Your task to perform on an android device: open app "Google Play services" Image 0: 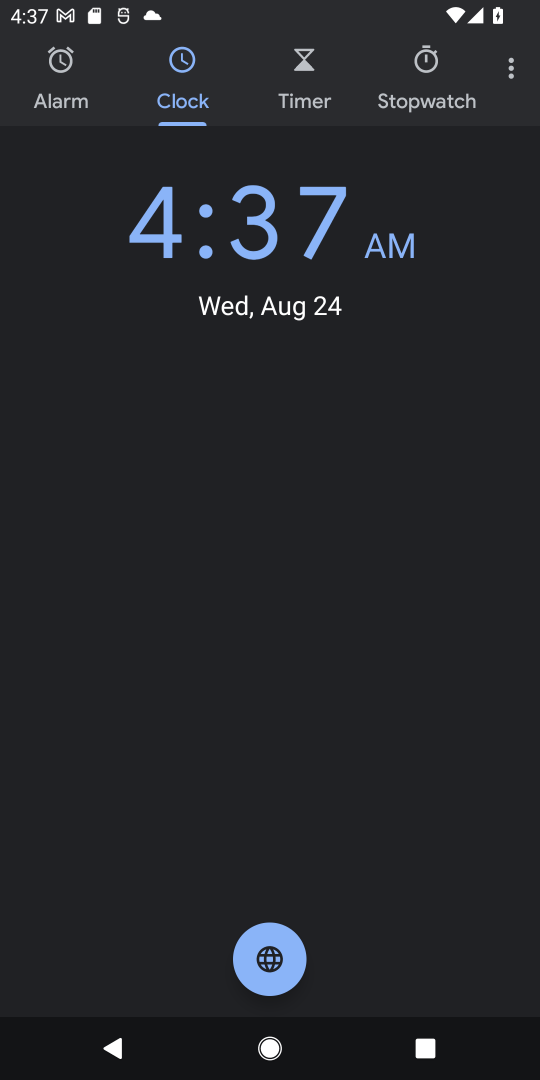
Step 0: press home button
Your task to perform on an android device: open app "Google Play services" Image 1: 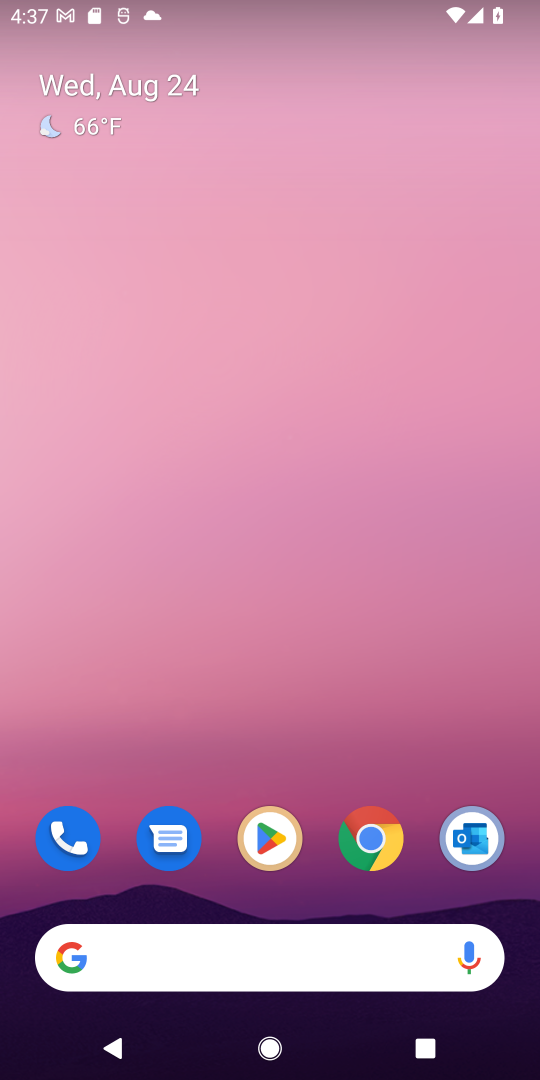
Step 1: click (267, 834)
Your task to perform on an android device: open app "Google Play services" Image 2: 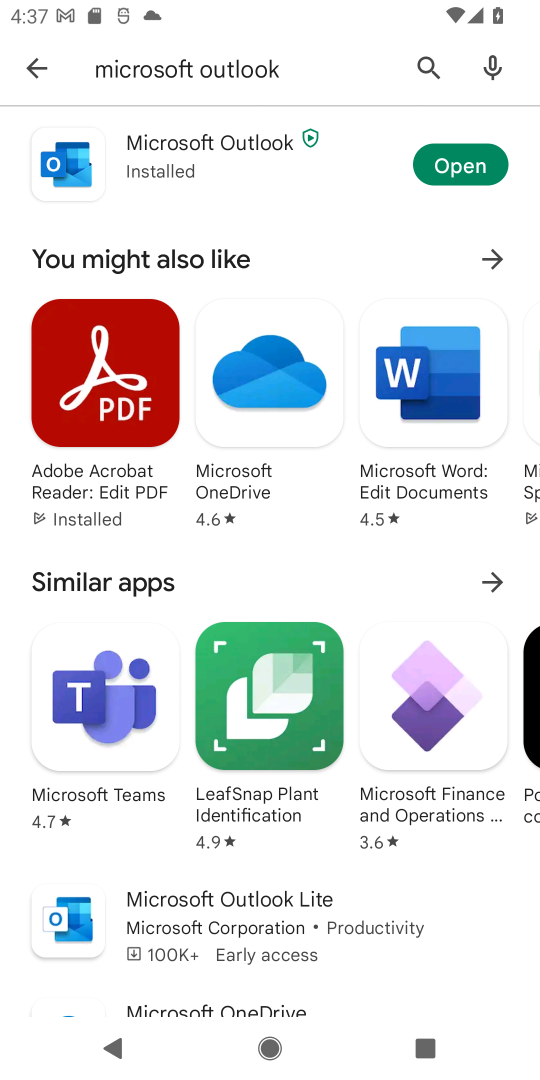
Step 2: click (419, 60)
Your task to perform on an android device: open app "Google Play services" Image 3: 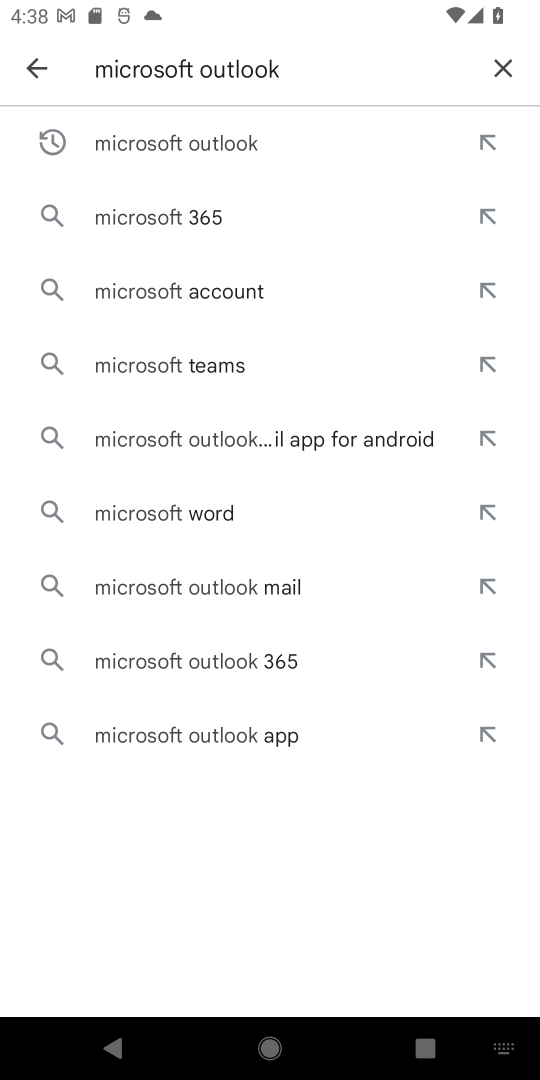
Step 3: click (499, 74)
Your task to perform on an android device: open app "Google Play services" Image 4: 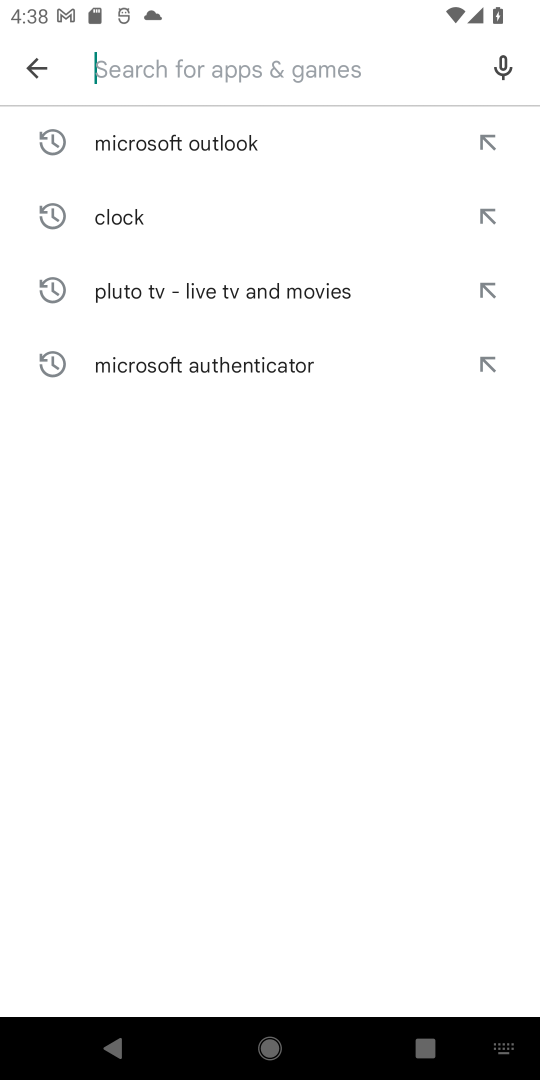
Step 4: type "Google Play services"
Your task to perform on an android device: open app "Google Play services" Image 5: 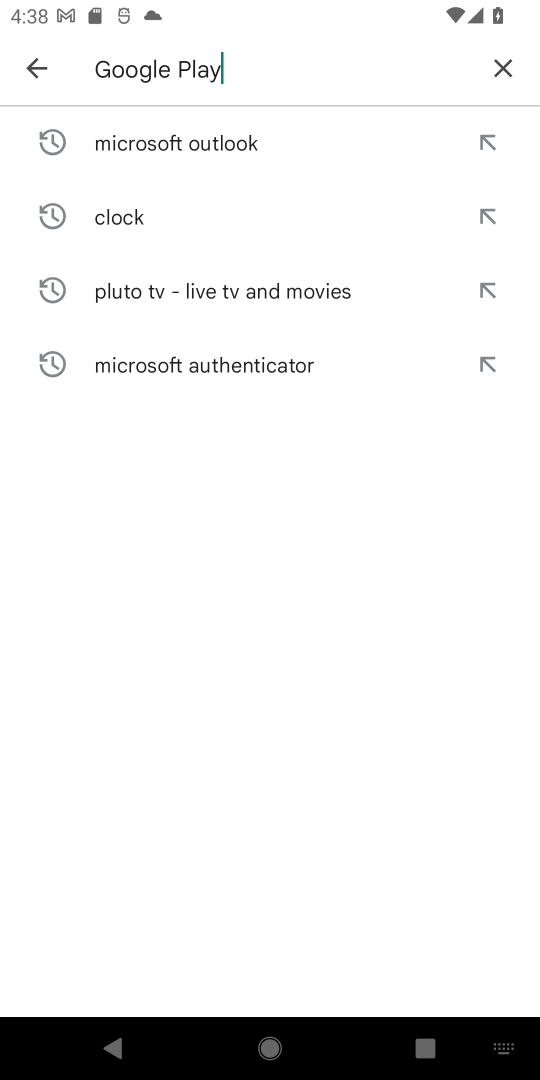
Step 5: type ""
Your task to perform on an android device: open app "Google Play services" Image 6: 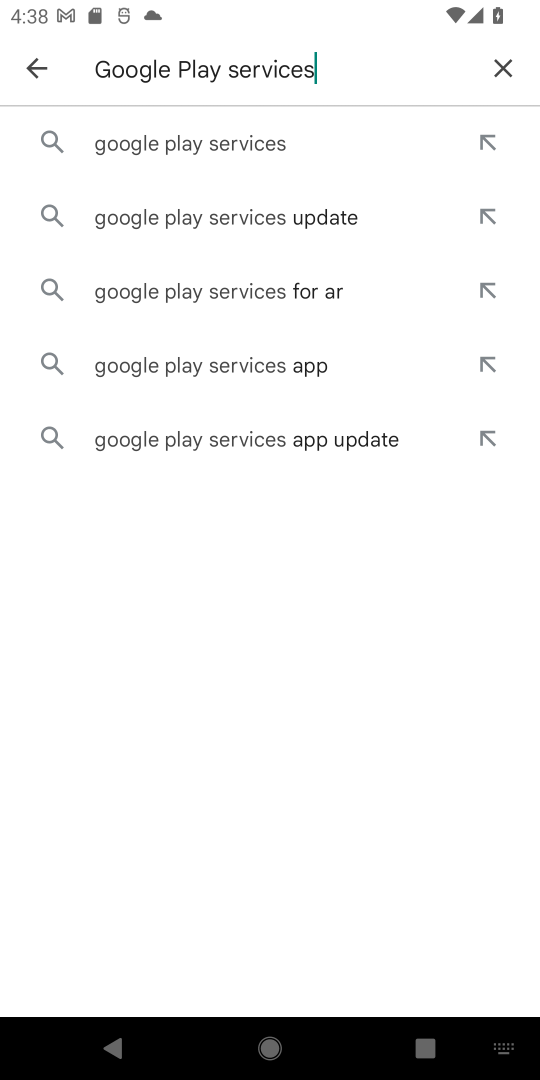
Step 6: click (307, 142)
Your task to perform on an android device: open app "Google Play services" Image 7: 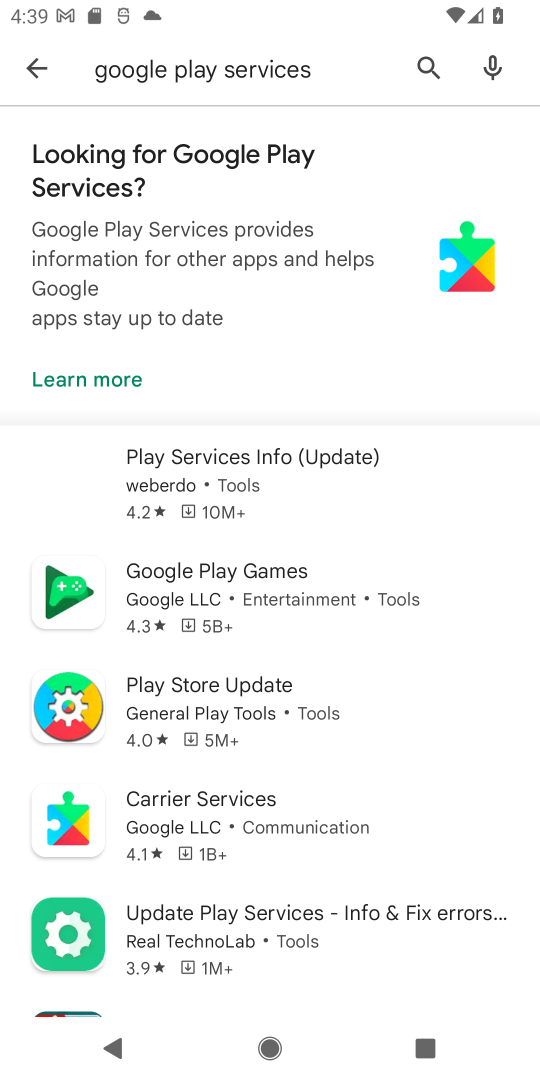
Step 7: task complete